Your task to perform on an android device: Go to Yahoo.com Image 0: 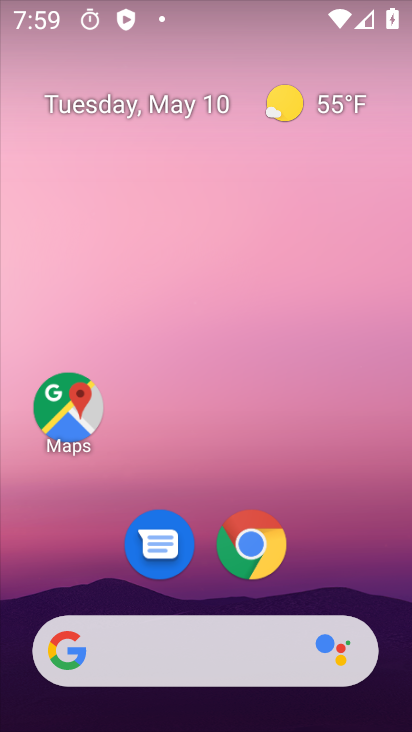
Step 0: click (236, 541)
Your task to perform on an android device: Go to Yahoo.com Image 1: 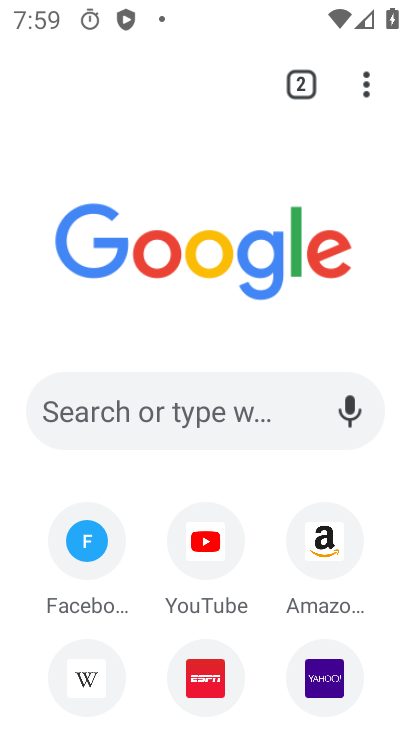
Step 1: click (310, 682)
Your task to perform on an android device: Go to Yahoo.com Image 2: 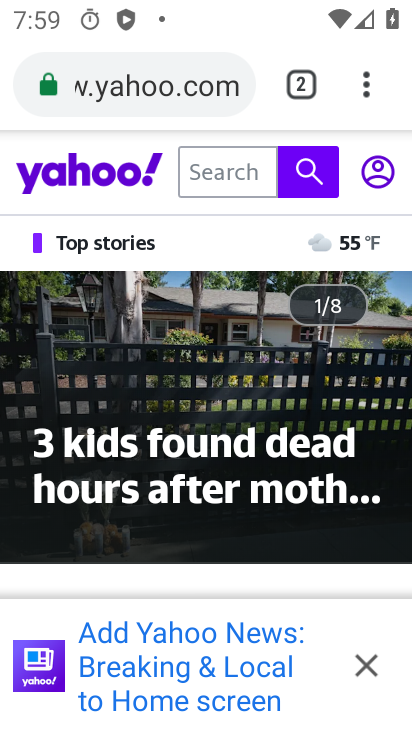
Step 2: task complete